Your task to perform on an android device: open device folders in google photos Image 0: 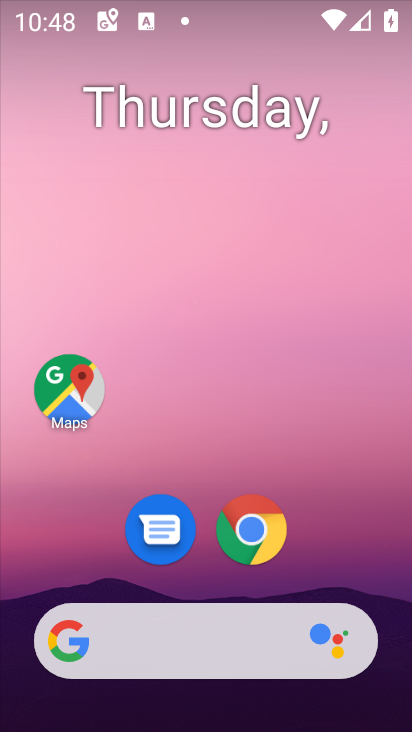
Step 0: drag from (283, 703) to (169, 64)
Your task to perform on an android device: open device folders in google photos Image 1: 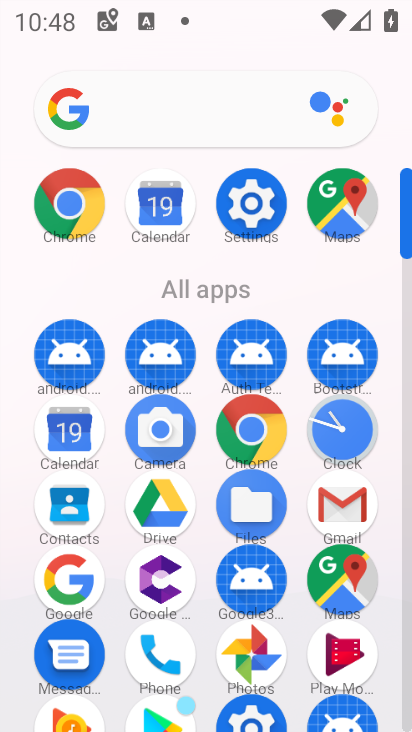
Step 1: drag from (236, 488) to (183, 116)
Your task to perform on an android device: open device folders in google photos Image 2: 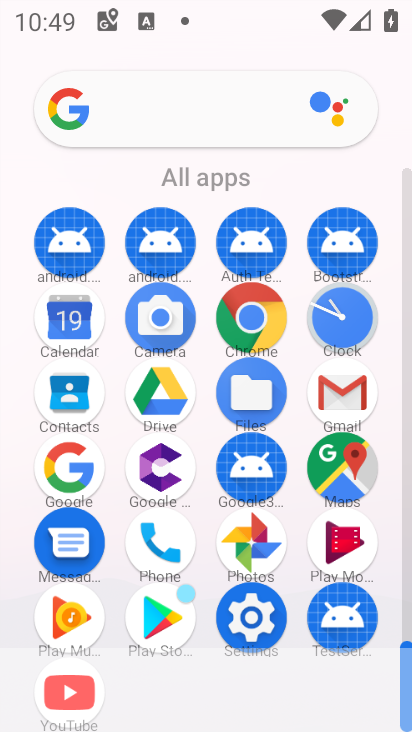
Step 2: click (263, 543)
Your task to perform on an android device: open device folders in google photos Image 3: 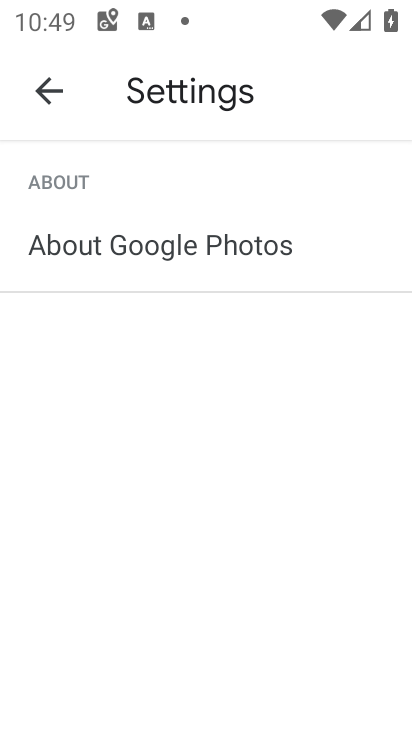
Step 3: click (38, 82)
Your task to perform on an android device: open device folders in google photos Image 4: 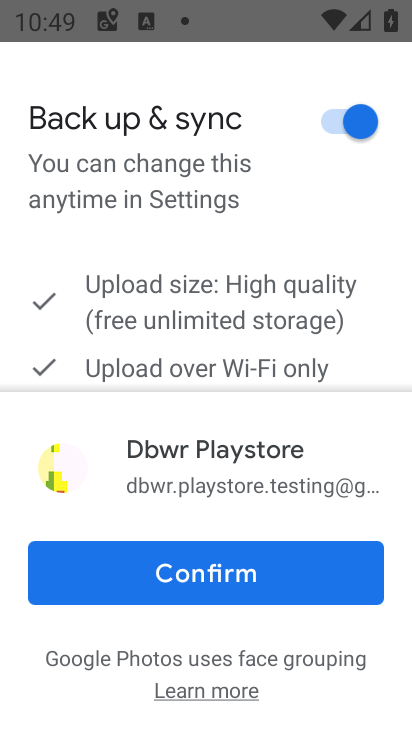
Step 4: click (262, 585)
Your task to perform on an android device: open device folders in google photos Image 5: 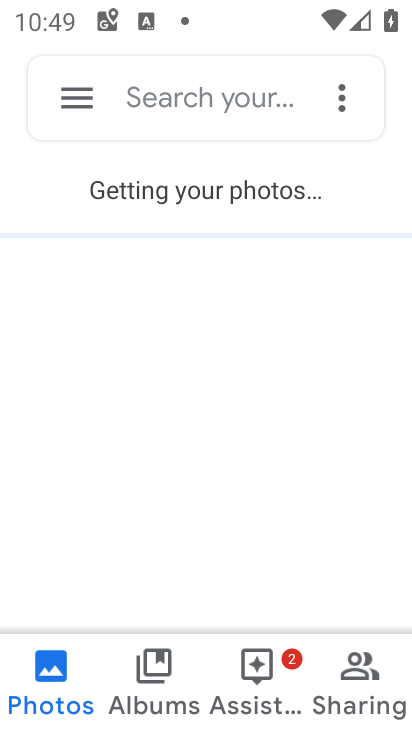
Step 5: click (82, 111)
Your task to perform on an android device: open device folders in google photos Image 6: 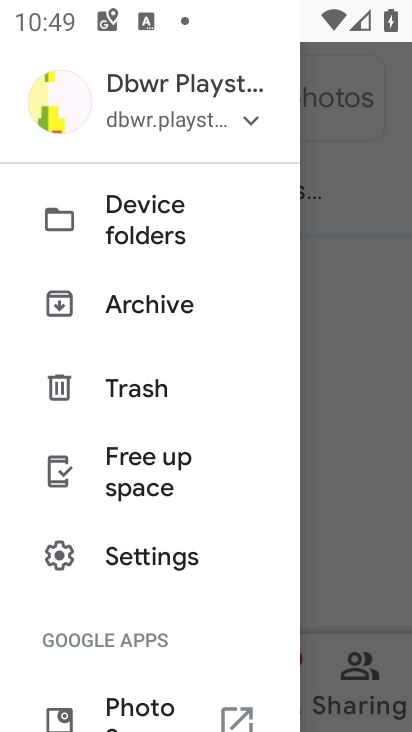
Step 6: click (136, 215)
Your task to perform on an android device: open device folders in google photos Image 7: 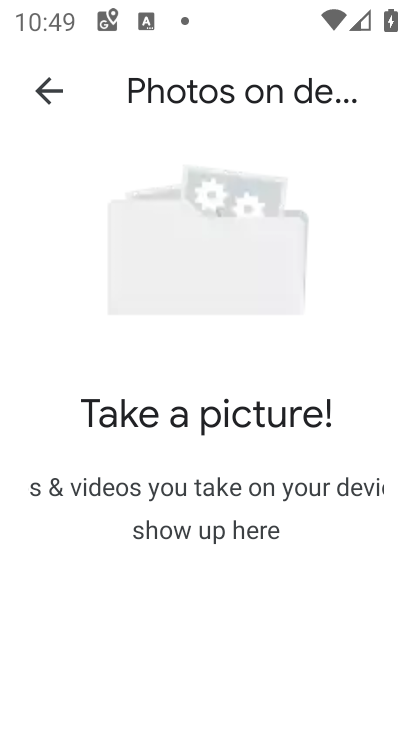
Step 7: task complete